Your task to perform on an android device: check battery use Image 0: 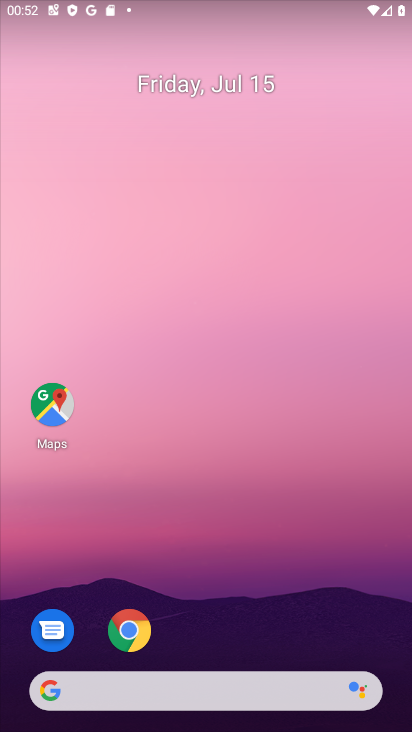
Step 0: drag from (292, 650) to (233, 202)
Your task to perform on an android device: check battery use Image 1: 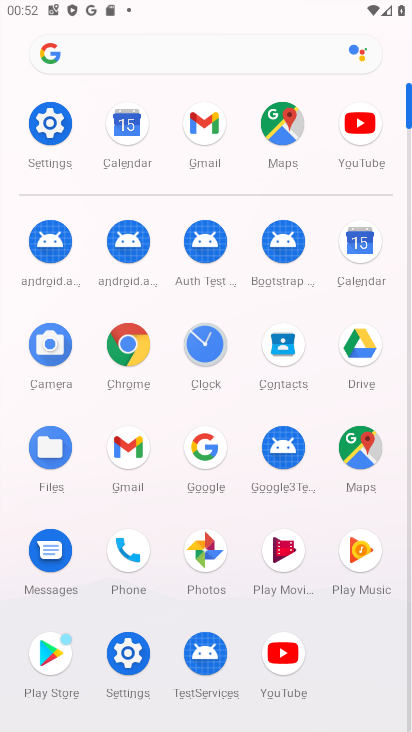
Step 1: click (55, 144)
Your task to perform on an android device: check battery use Image 2: 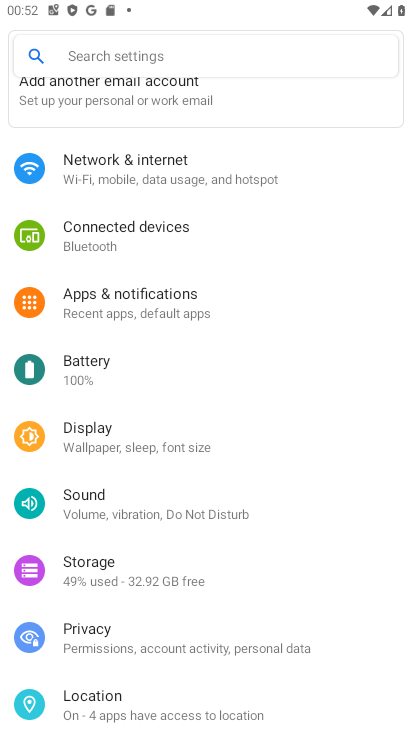
Step 2: click (109, 378)
Your task to perform on an android device: check battery use Image 3: 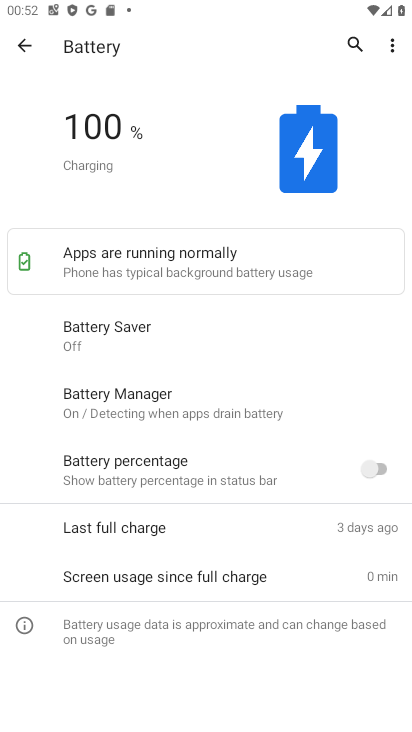
Step 3: task complete